Your task to perform on an android device: Open Maps and search for coffee Image 0: 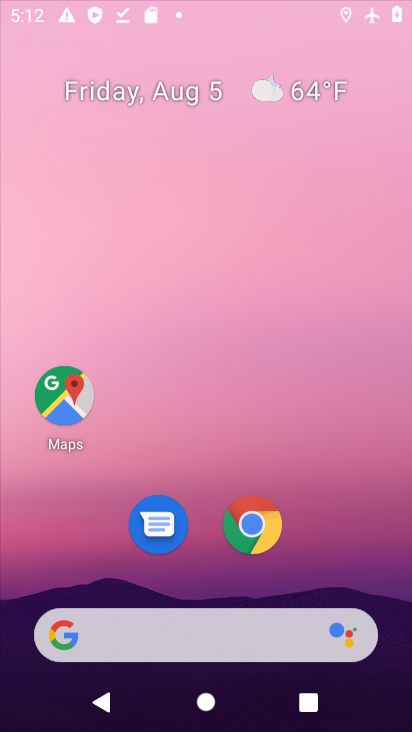
Step 0: click (211, 165)
Your task to perform on an android device: Open Maps and search for coffee Image 1: 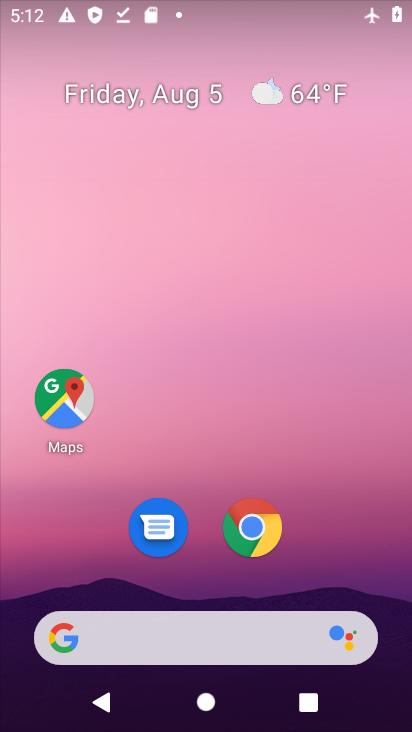
Step 1: drag from (187, 595) to (229, 267)
Your task to perform on an android device: Open Maps and search for coffee Image 2: 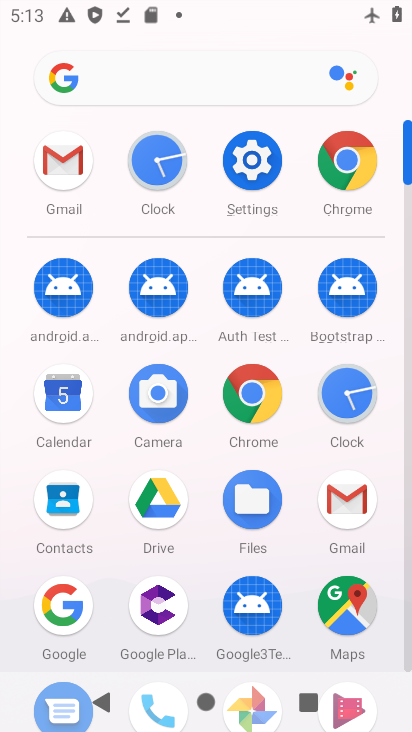
Step 2: click (351, 617)
Your task to perform on an android device: Open Maps and search for coffee Image 3: 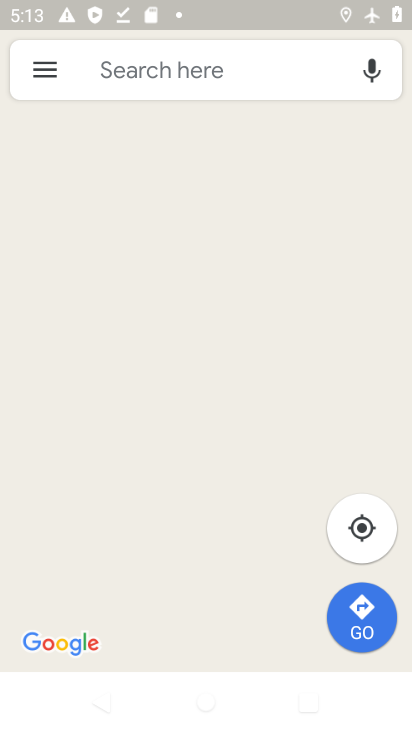
Step 3: click (129, 65)
Your task to perform on an android device: Open Maps and search for coffee Image 4: 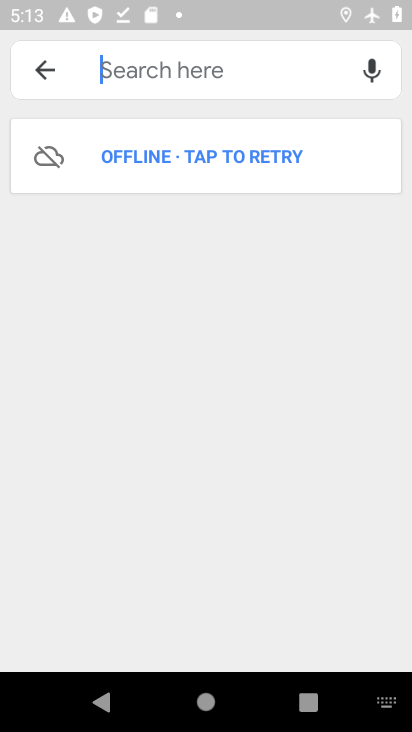
Step 4: type "coffee"
Your task to perform on an android device: Open Maps and search for coffee Image 5: 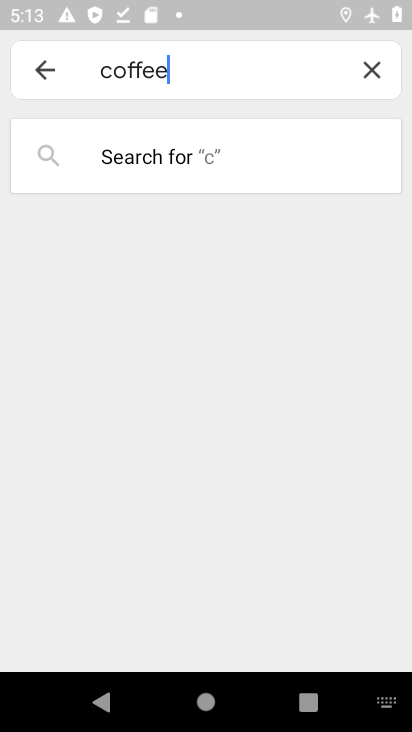
Step 5: type ""
Your task to perform on an android device: Open Maps and search for coffee Image 6: 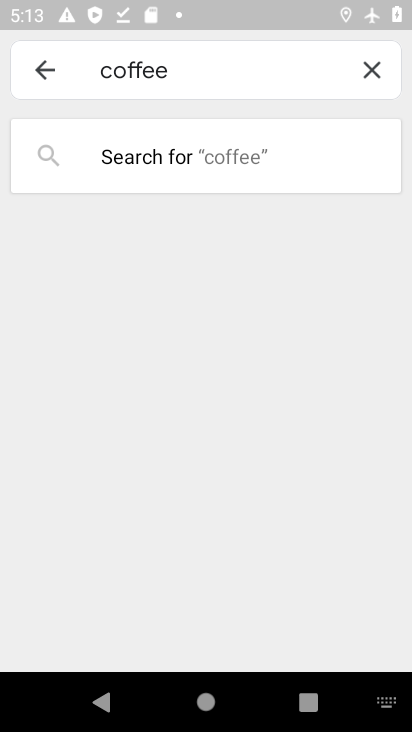
Step 6: click (174, 155)
Your task to perform on an android device: Open Maps and search for coffee Image 7: 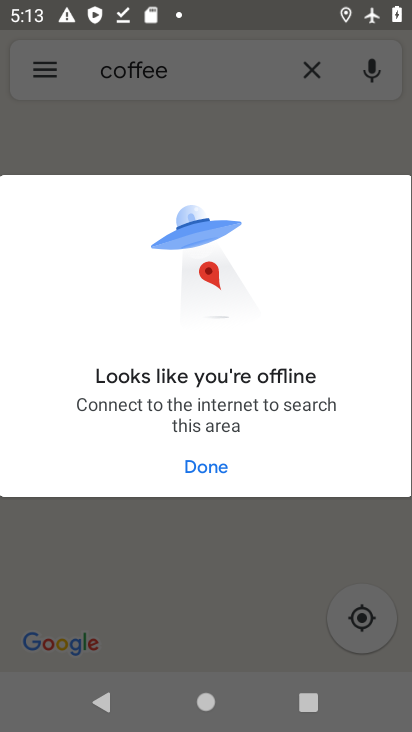
Step 7: click (200, 455)
Your task to perform on an android device: Open Maps and search for coffee Image 8: 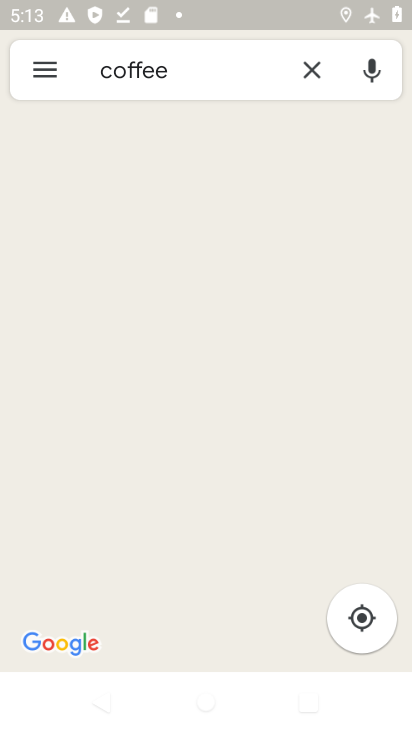
Step 8: task complete